Your task to perform on an android device: change the clock display to digital Image 0: 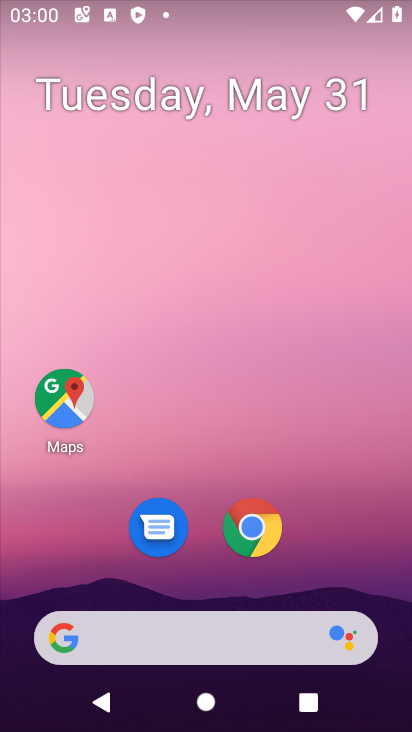
Step 0: drag from (398, 626) to (349, 156)
Your task to perform on an android device: change the clock display to digital Image 1: 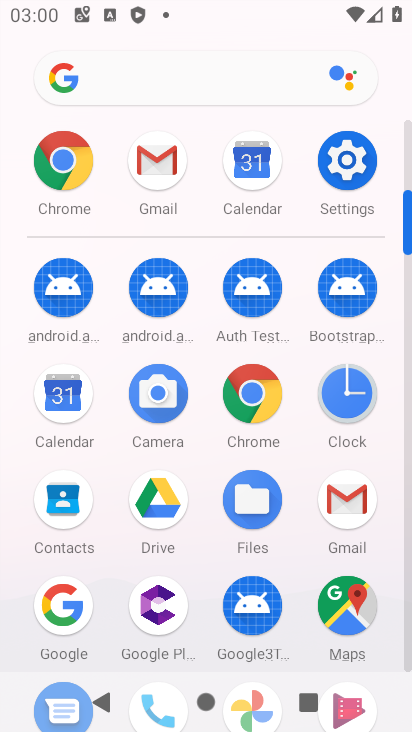
Step 1: click (409, 653)
Your task to perform on an android device: change the clock display to digital Image 2: 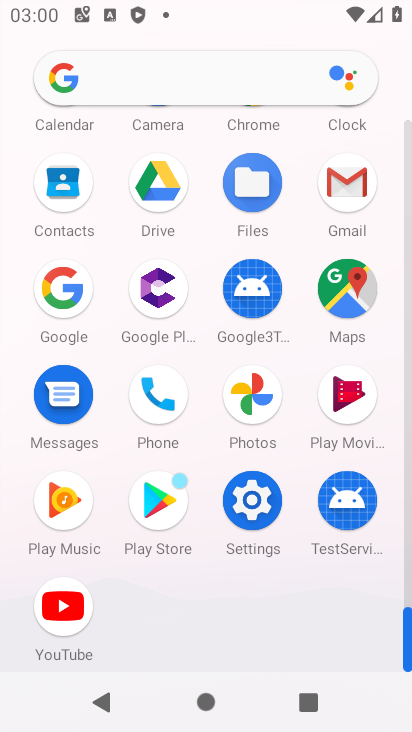
Step 2: click (411, 172)
Your task to perform on an android device: change the clock display to digital Image 3: 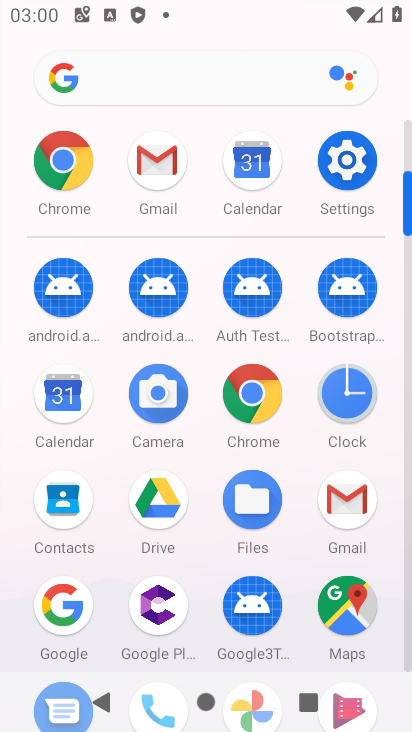
Step 3: click (347, 391)
Your task to perform on an android device: change the clock display to digital Image 4: 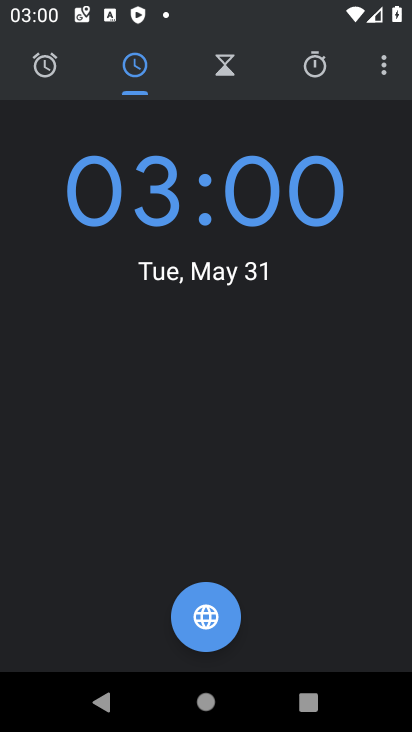
Step 4: click (383, 70)
Your task to perform on an android device: change the clock display to digital Image 5: 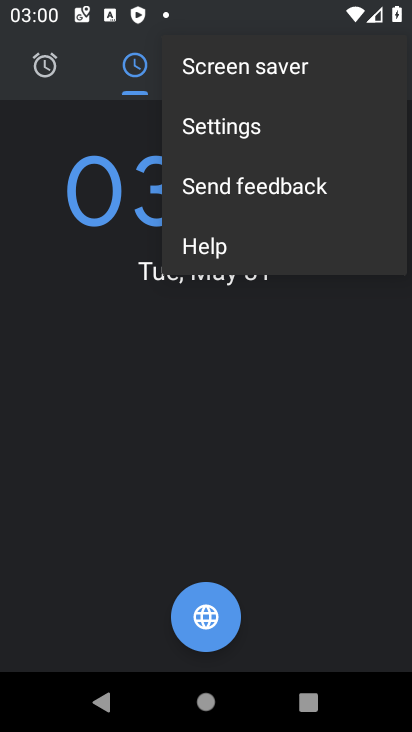
Step 5: click (194, 121)
Your task to perform on an android device: change the clock display to digital Image 6: 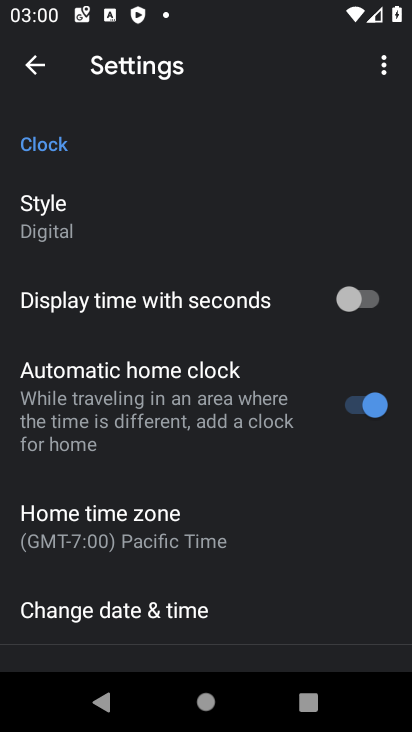
Step 6: task complete